Your task to perform on an android device: Show me recent news Image 0: 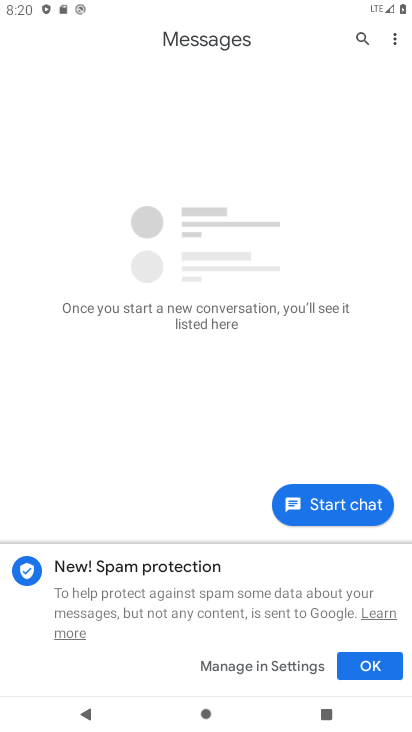
Step 0: press home button
Your task to perform on an android device: Show me recent news Image 1: 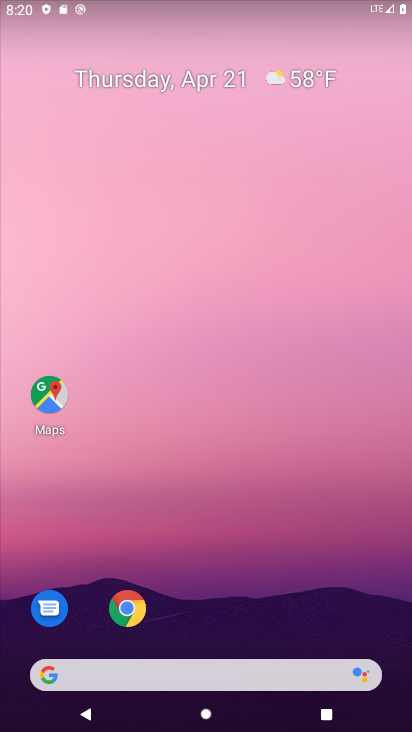
Step 1: click (43, 671)
Your task to perform on an android device: Show me recent news Image 2: 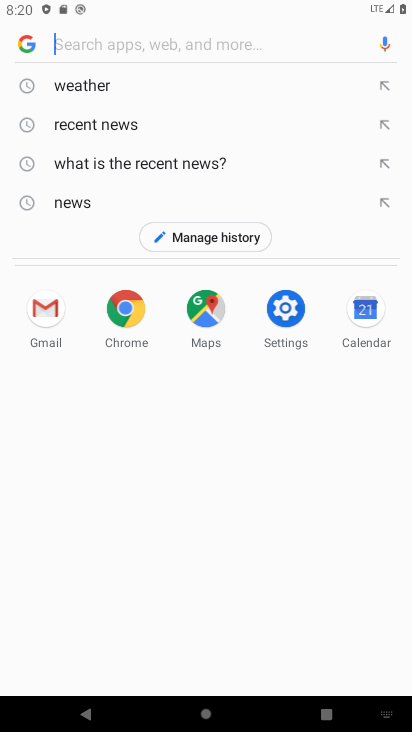
Step 2: click (83, 125)
Your task to perform on an android device: Show me recent news Image 3: 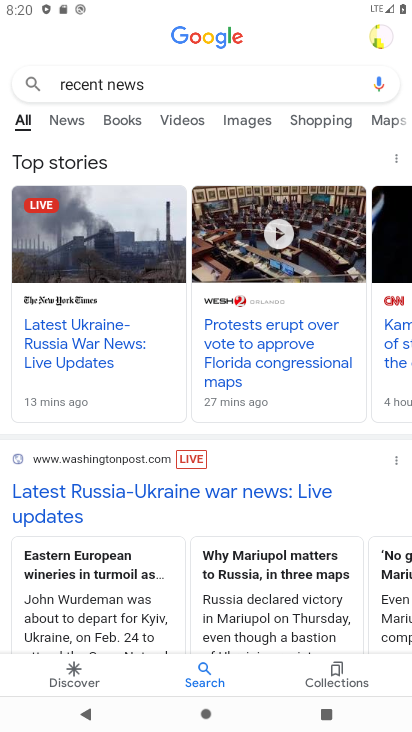
Step 3: task complete